Your task to perform on an android device: open chrome privacy settings Image 0: 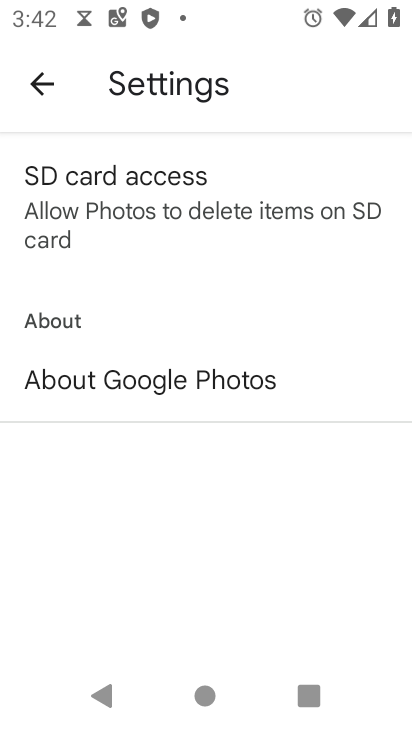
Step 0: press home button
Your task to perform on an android device: open chrome privacy settings Image 1: 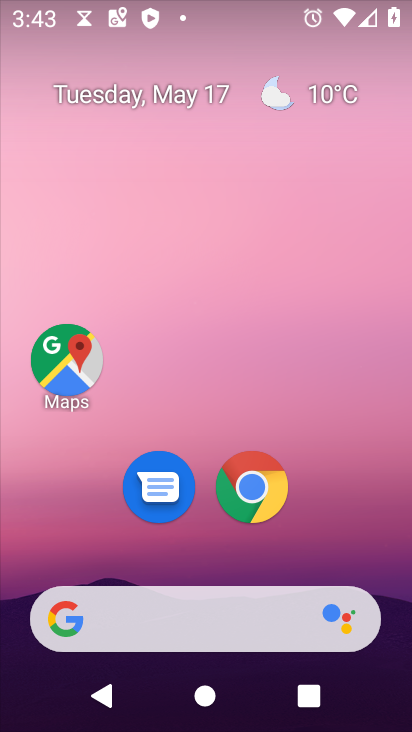
Step 1: click (388, 585)
Your task to perform on an android device: open chrome privacy settings Image 2: 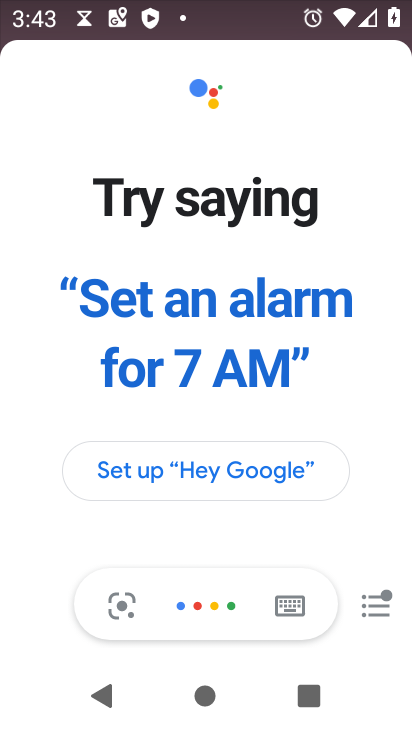
Step 2: click (257, 486)
Your task to perform on an android device: open chrome privacy settings Image 3: 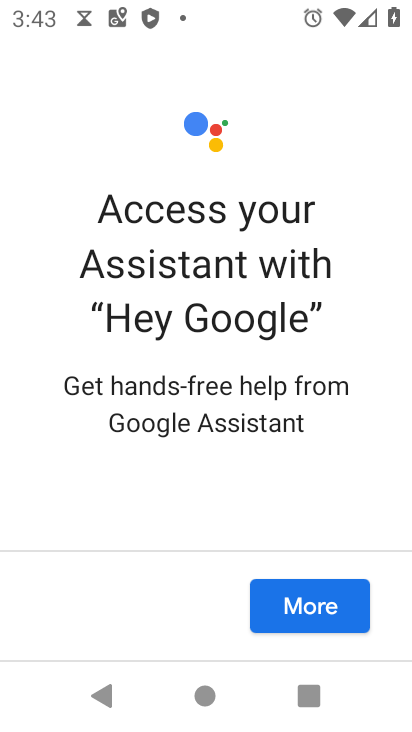
Step 3: click (310, 609)
Your task to perform on an android device: open chrome privacy settings Image 4: 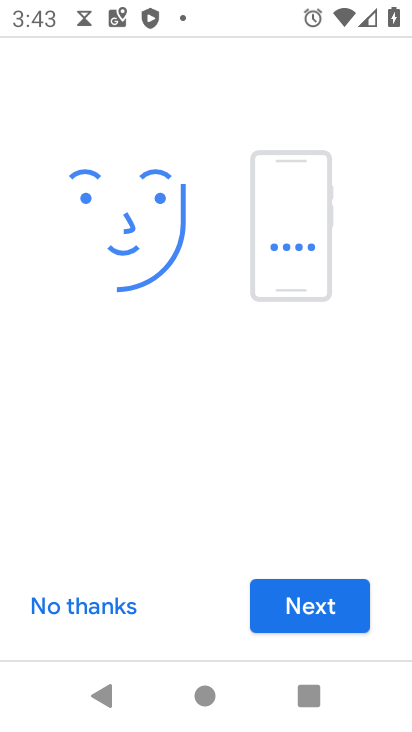
Step 4: press home button
Your task to perform on an android device: open chrome privacy settings Image 5: 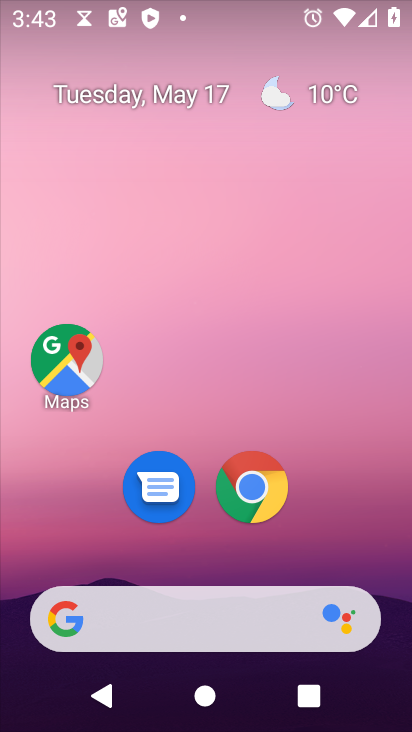
Step 5: click (253, 493)
Your task to perform on an android device: open chrome privacy settings Image 6: 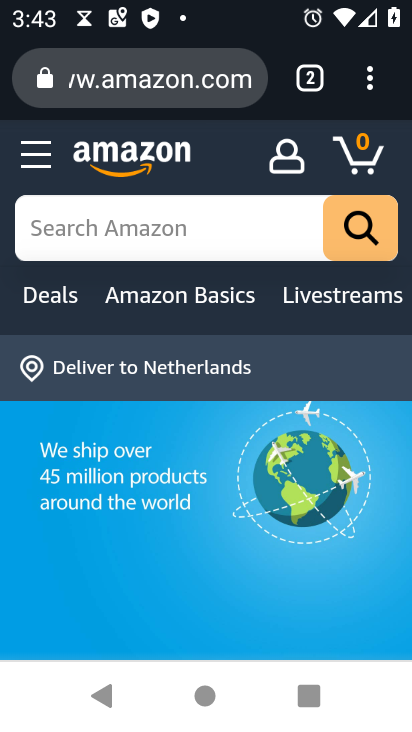
Step 6: click (369, 82)
Your task to perform on an android device: open chrome privacy settings Image 7: 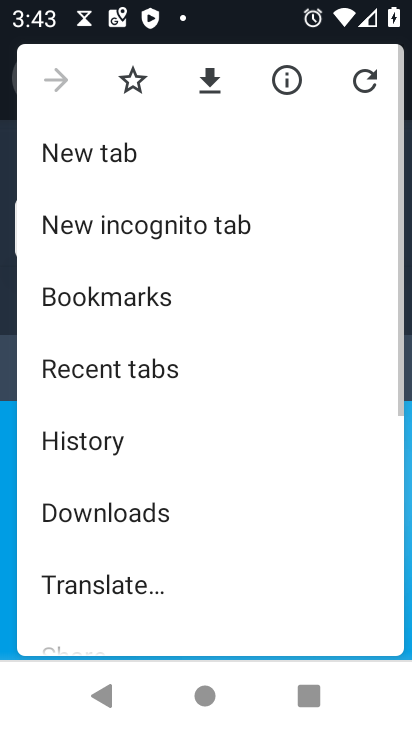
Step 7: drag from (219, 534) to (278, 181)
Your task to perform on an android device: open chrome privacy settings Image 8: 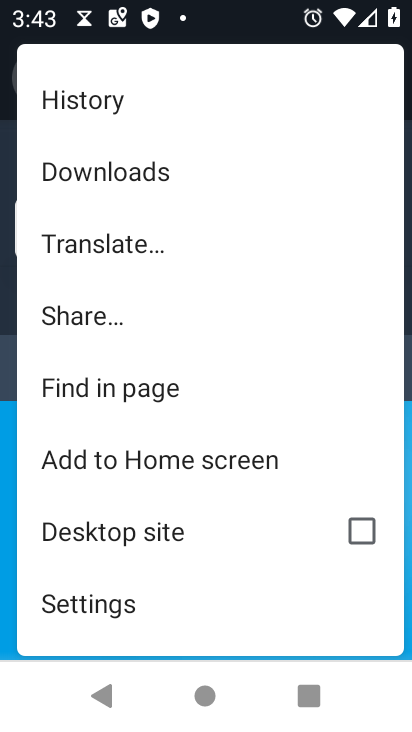
Step 8: click (98, 601)
Your task to perform on an android device: open chrome privacy settings Image 9: 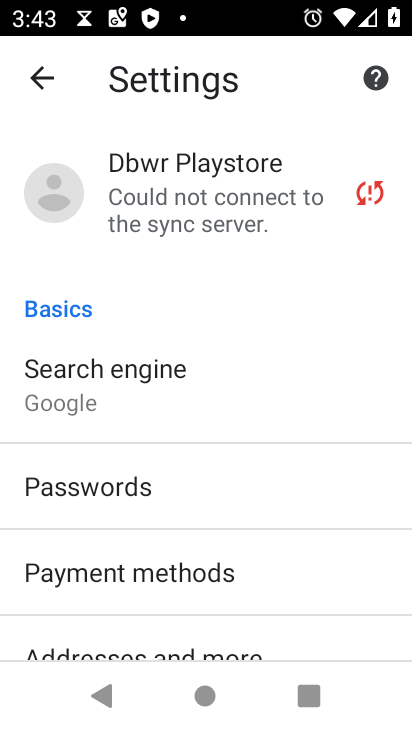
Step 9: drag from (326, 610) to (287, 210)
Your task to perform on an android device: open chrome privacy settings Image 10: 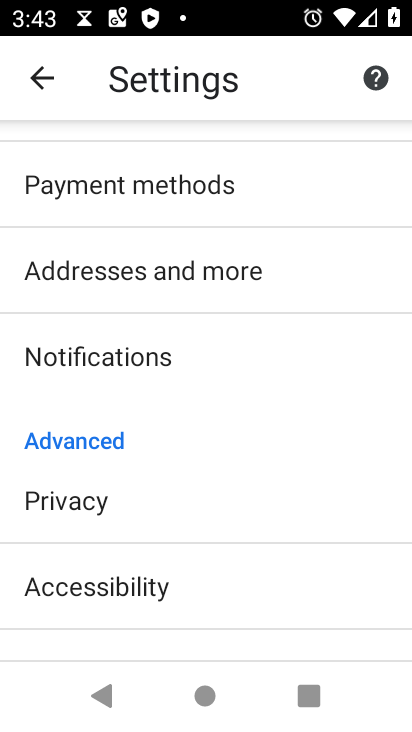
Step 10: click (82, 519)
Your task to perform on an android device: open chrome privacy settings Image 11: 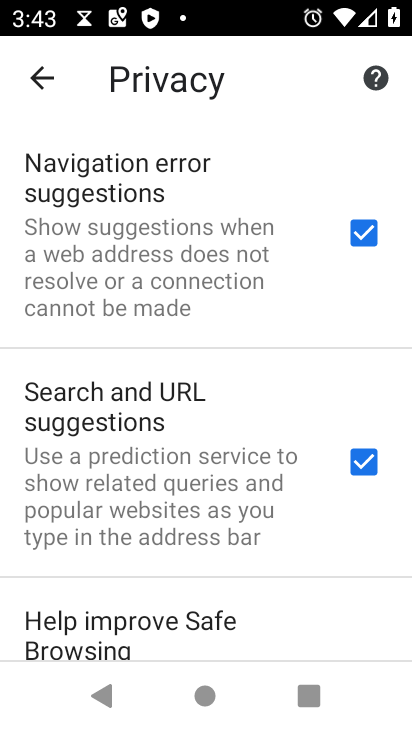
Step 11: task complete